Your task to perform on an android device: Open sound settings Image 0: 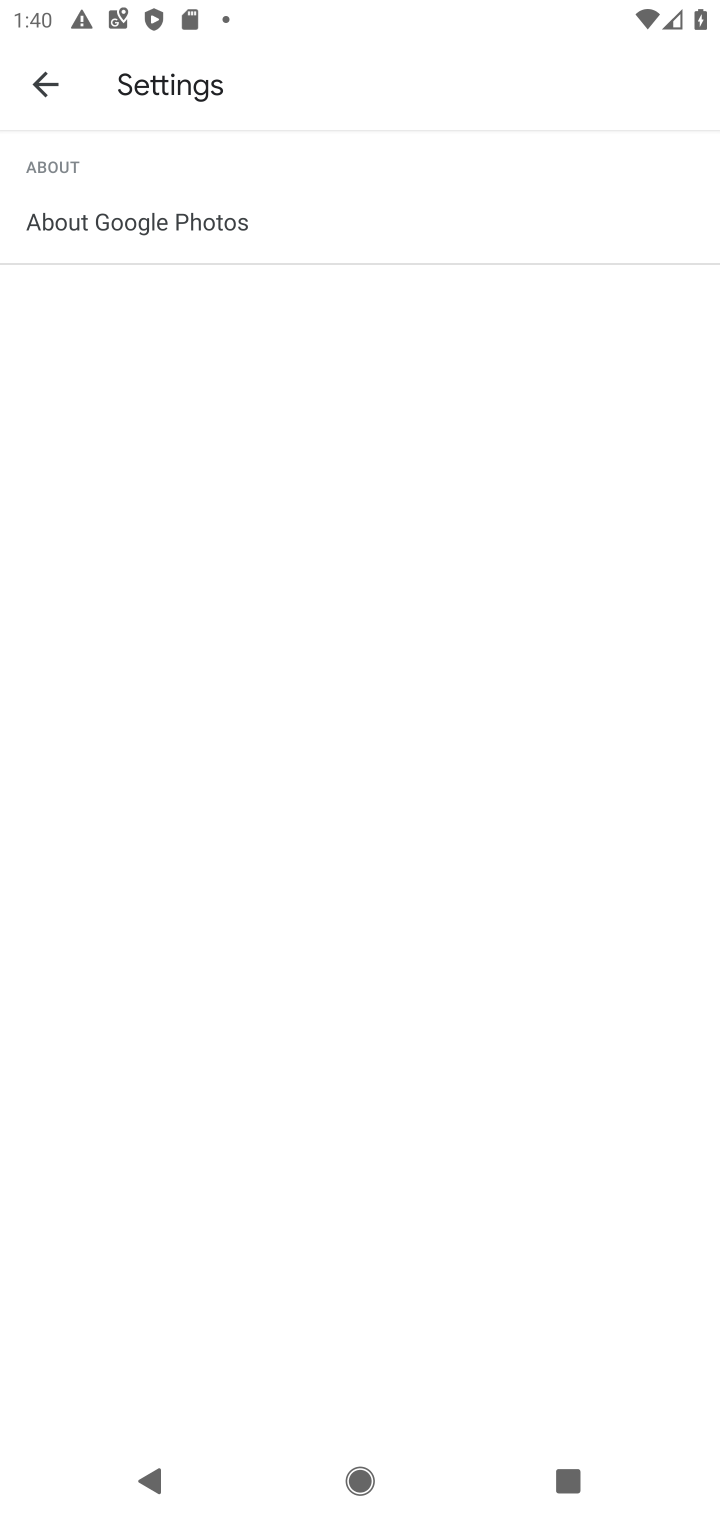
Step 0: press home button
Your task to perform on an android device: Open sound settings Image 1: 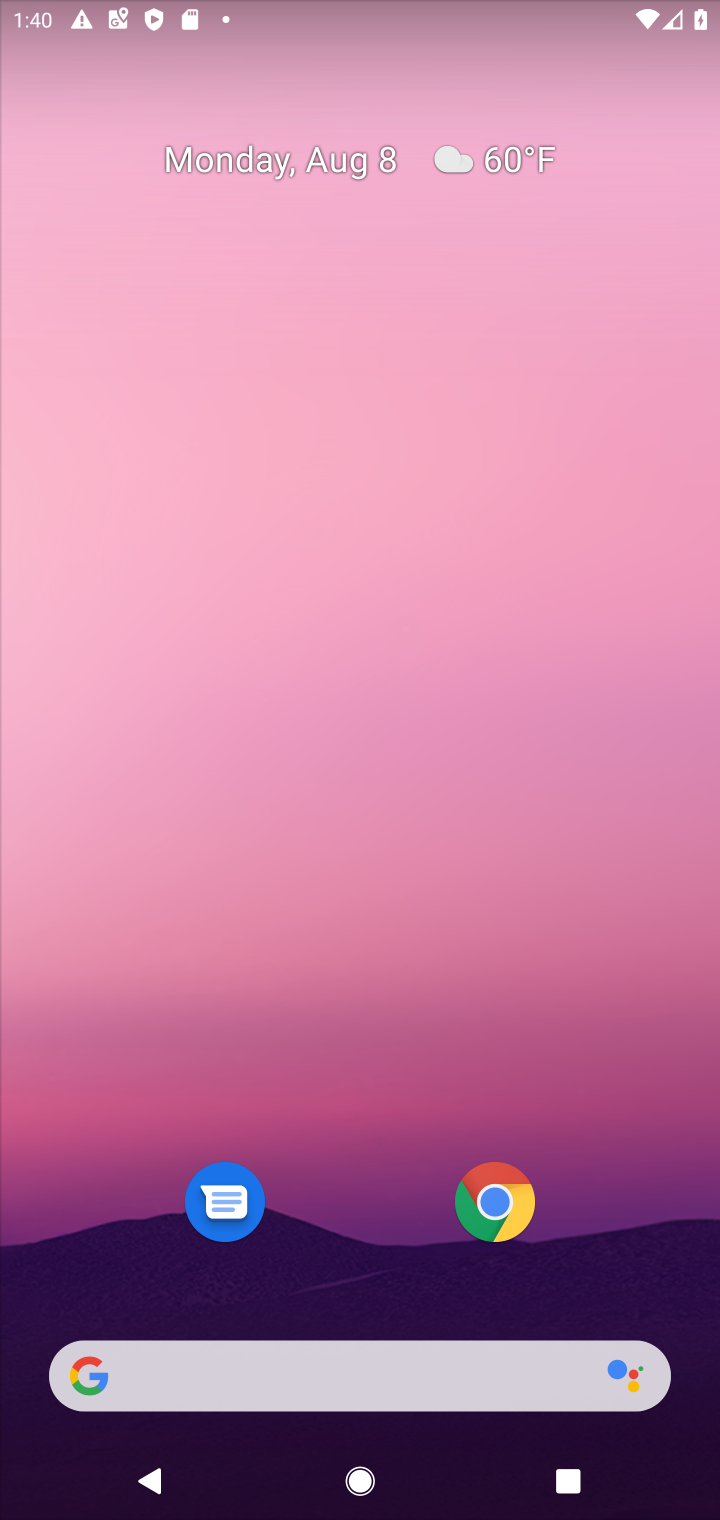
Step 1: press home button
Your task to perform on an android device: Open sound settings Image 2: 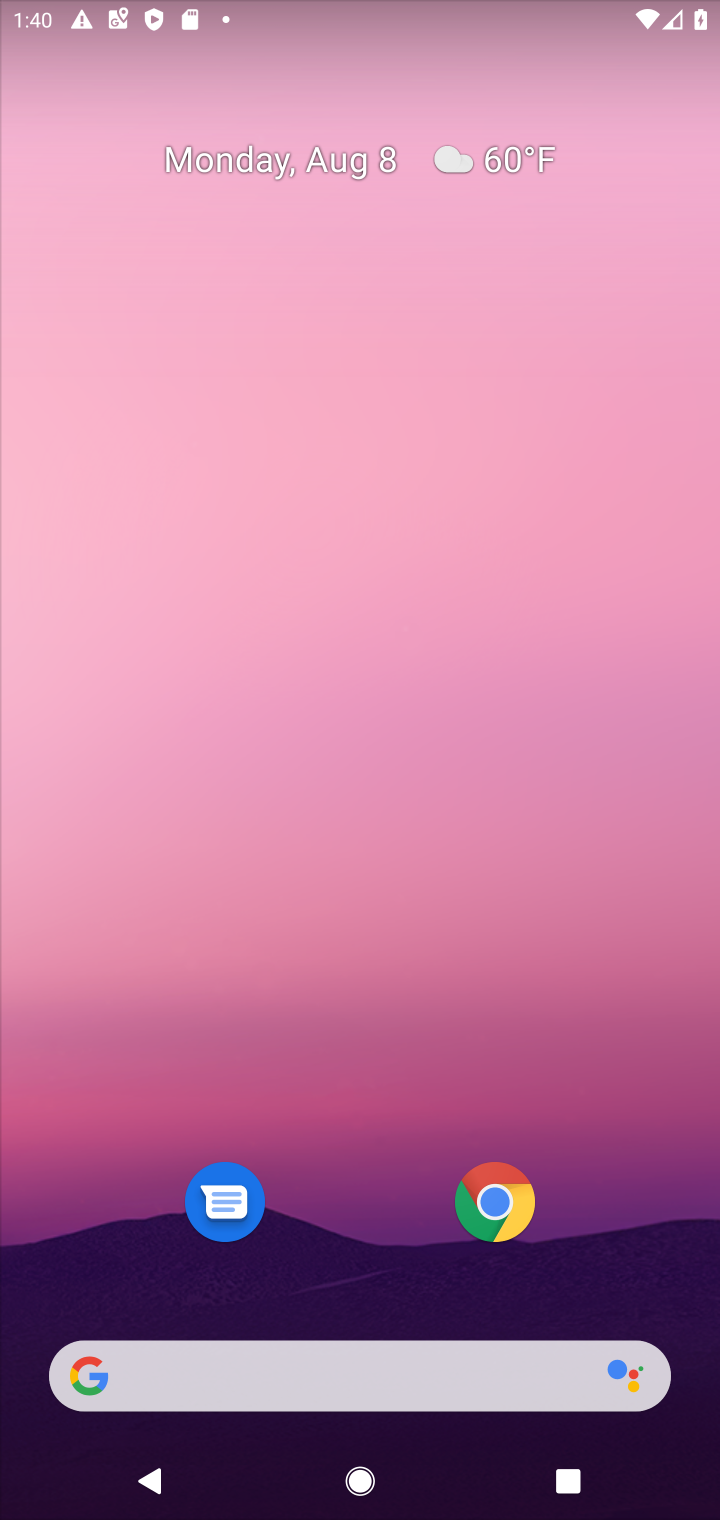
Step 2: click (581, 268)
Your task to perform on an android device: Open sound settings Image 3: 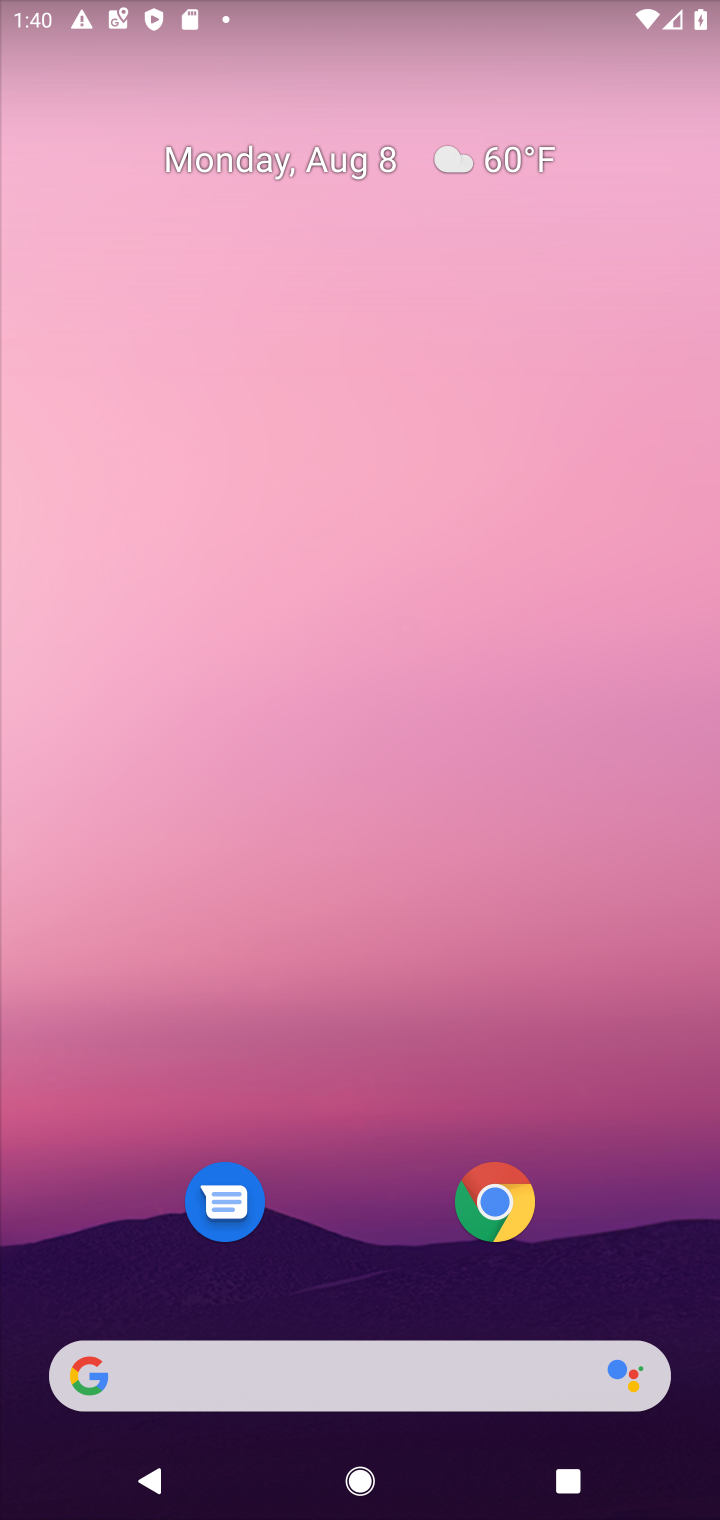
Step 3: drag from (615, 1095) to (593, 229)
Your task to perform on an android device: Open sound settings Image 4: 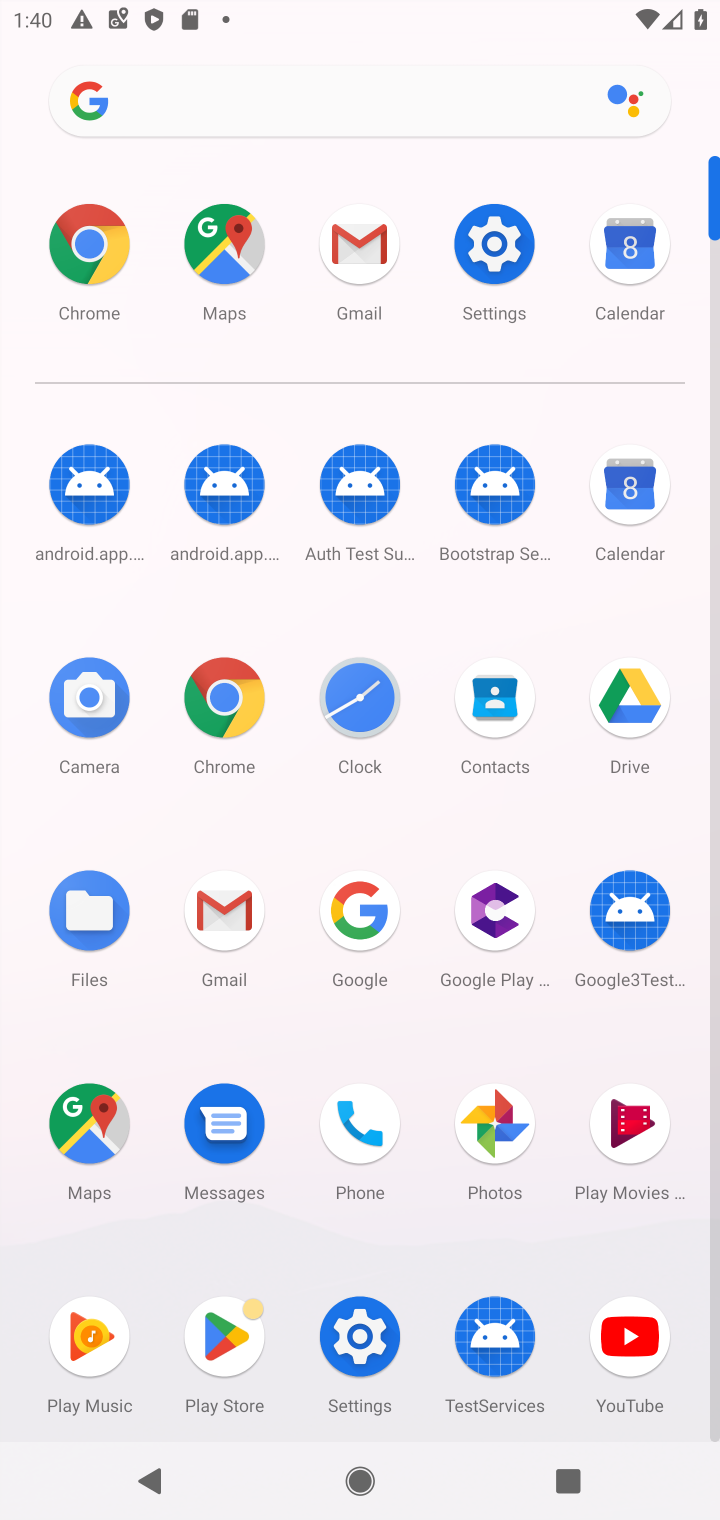
Step 4: click (345, 1338)
Your task to perform on an android device: Open sound settings Image 5: 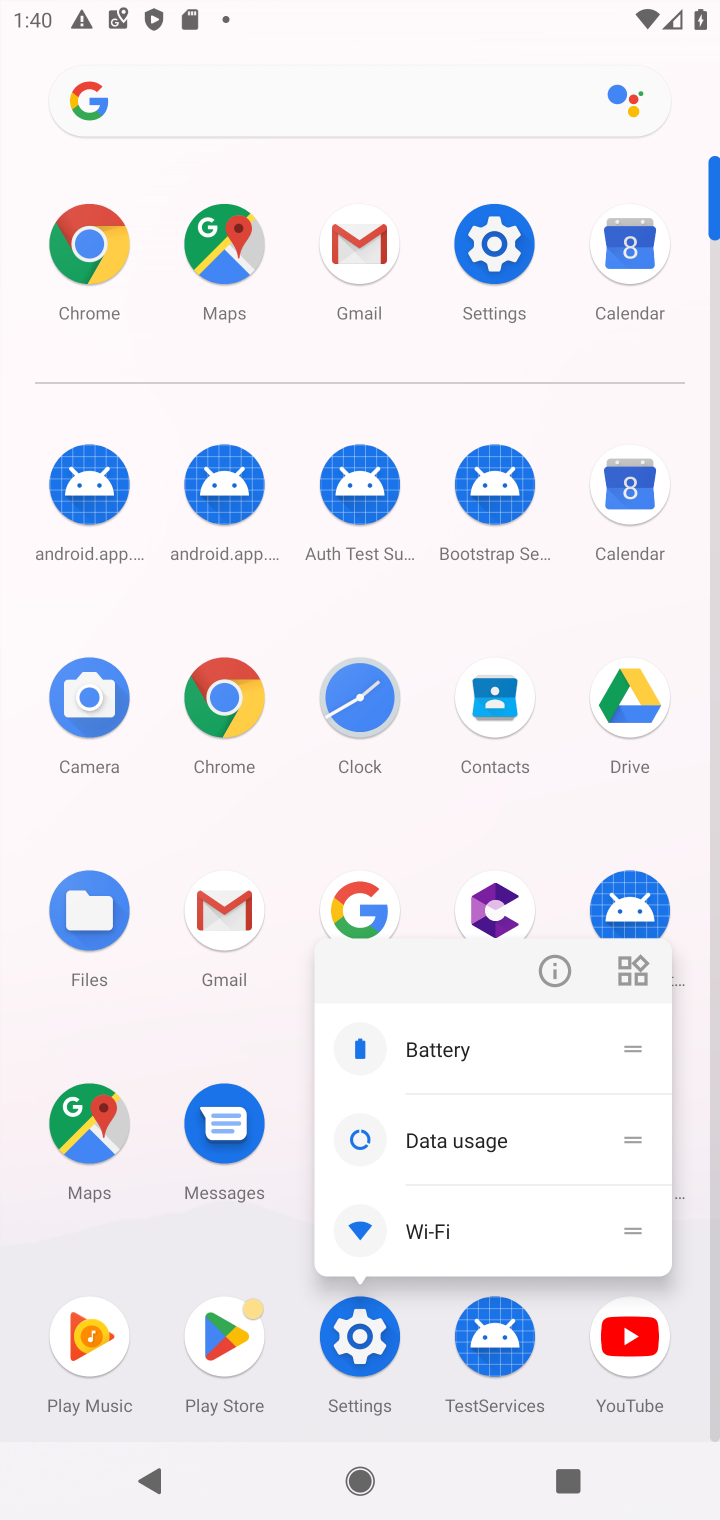
Step 5: click (497, 225)
Your task to perform on an android device: Open sound settings Image 6: 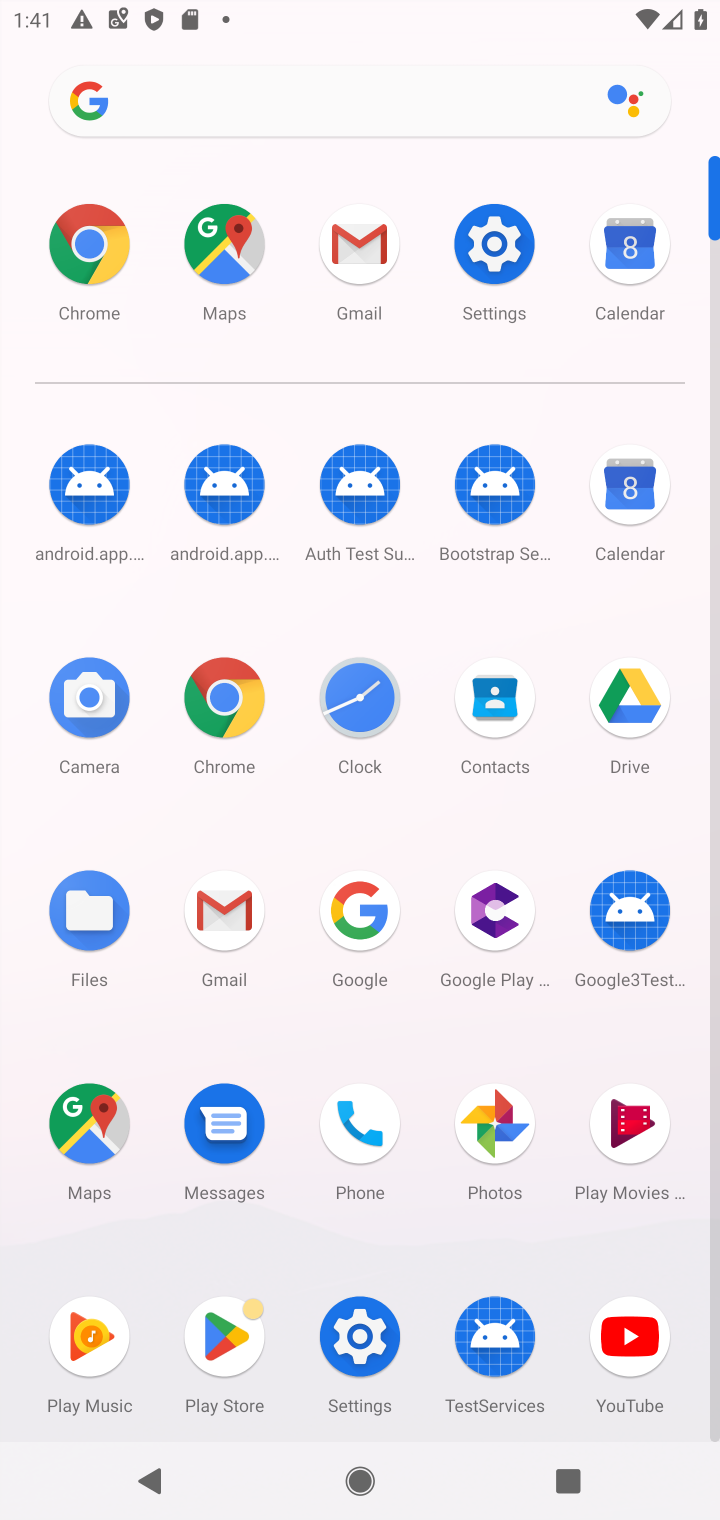
Step 6: click (494, 269)
Your task to perform on an android device: Open sound settings Image 7: 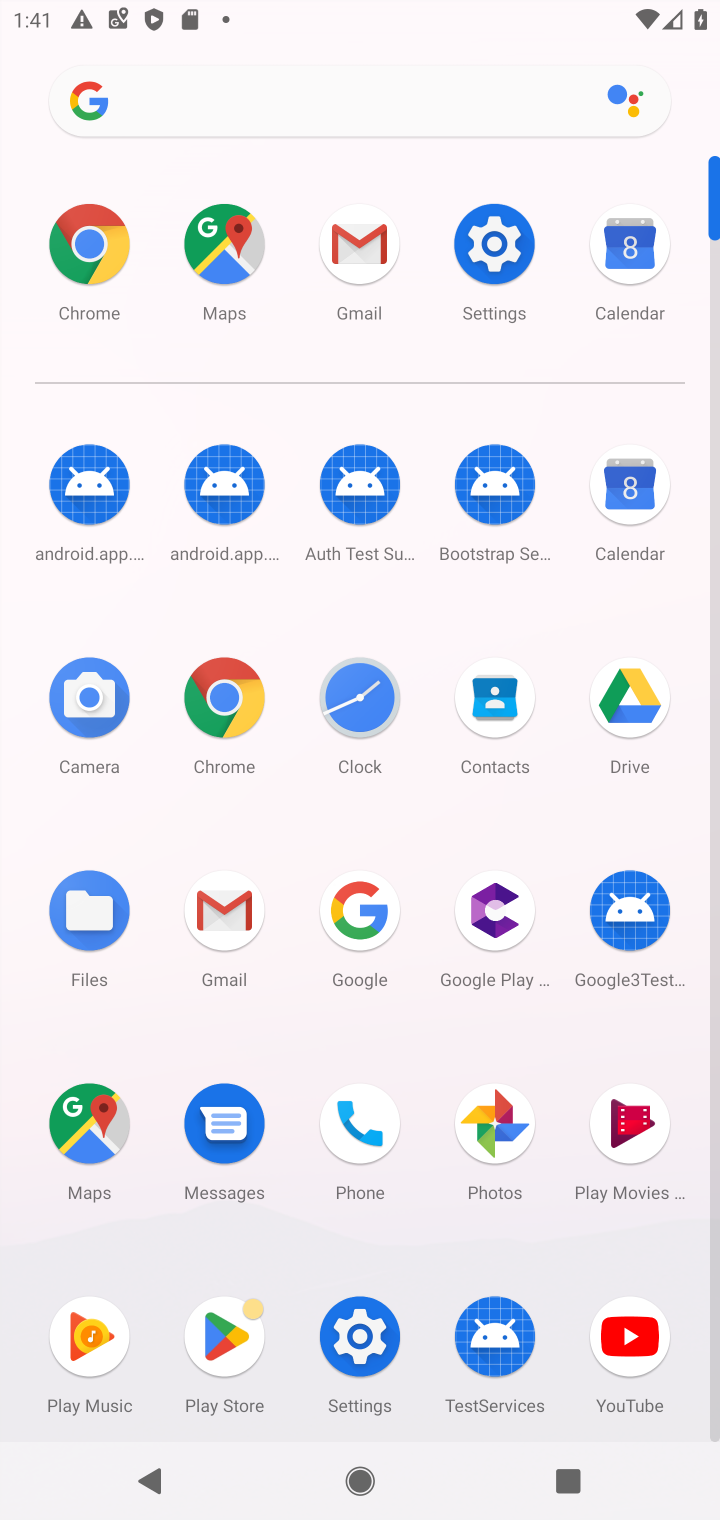
Step 7: click (494, 269)
Your task to perform on an android device: Open sound settings Image 8: 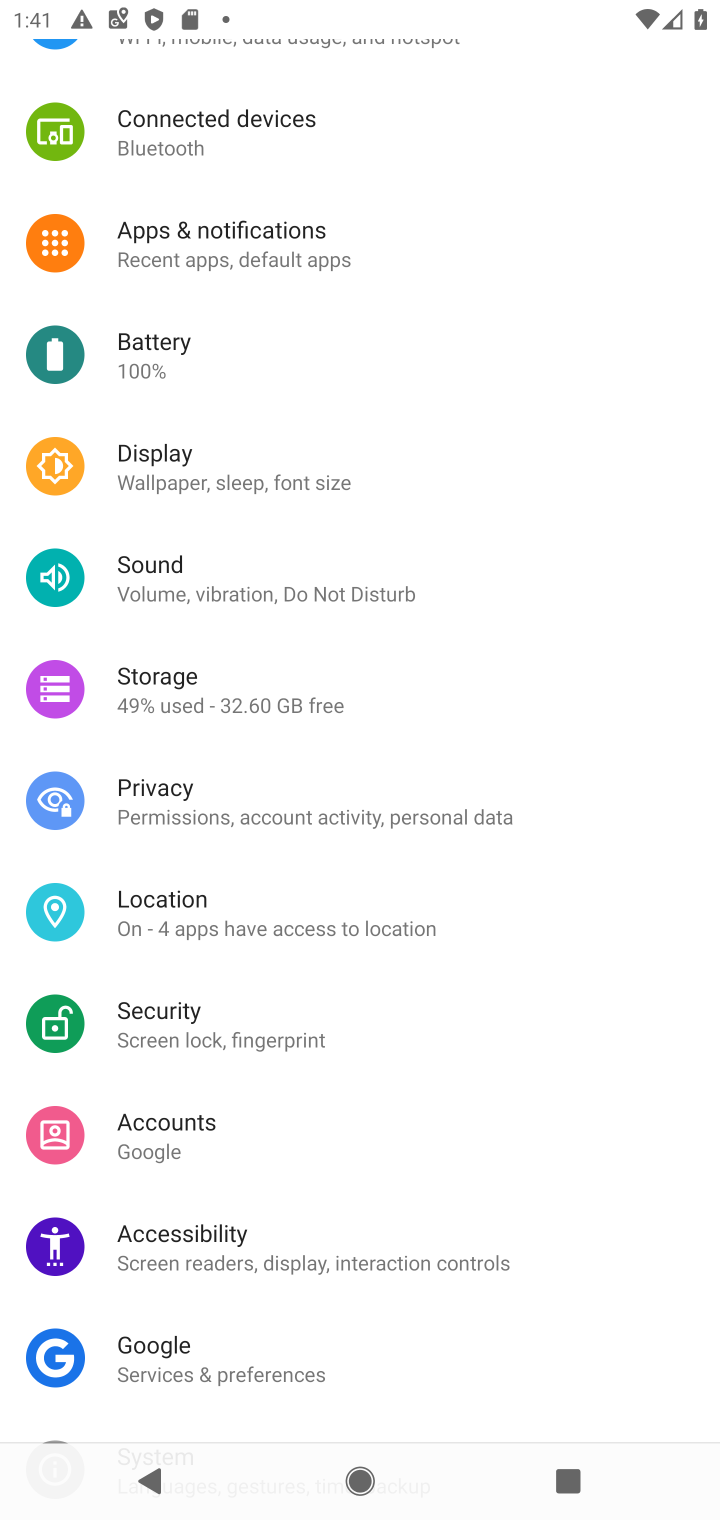
Step 8: drag from (608, 382) to (612, 756)
Your task to perform on an android device: Open sound settings Image 9: 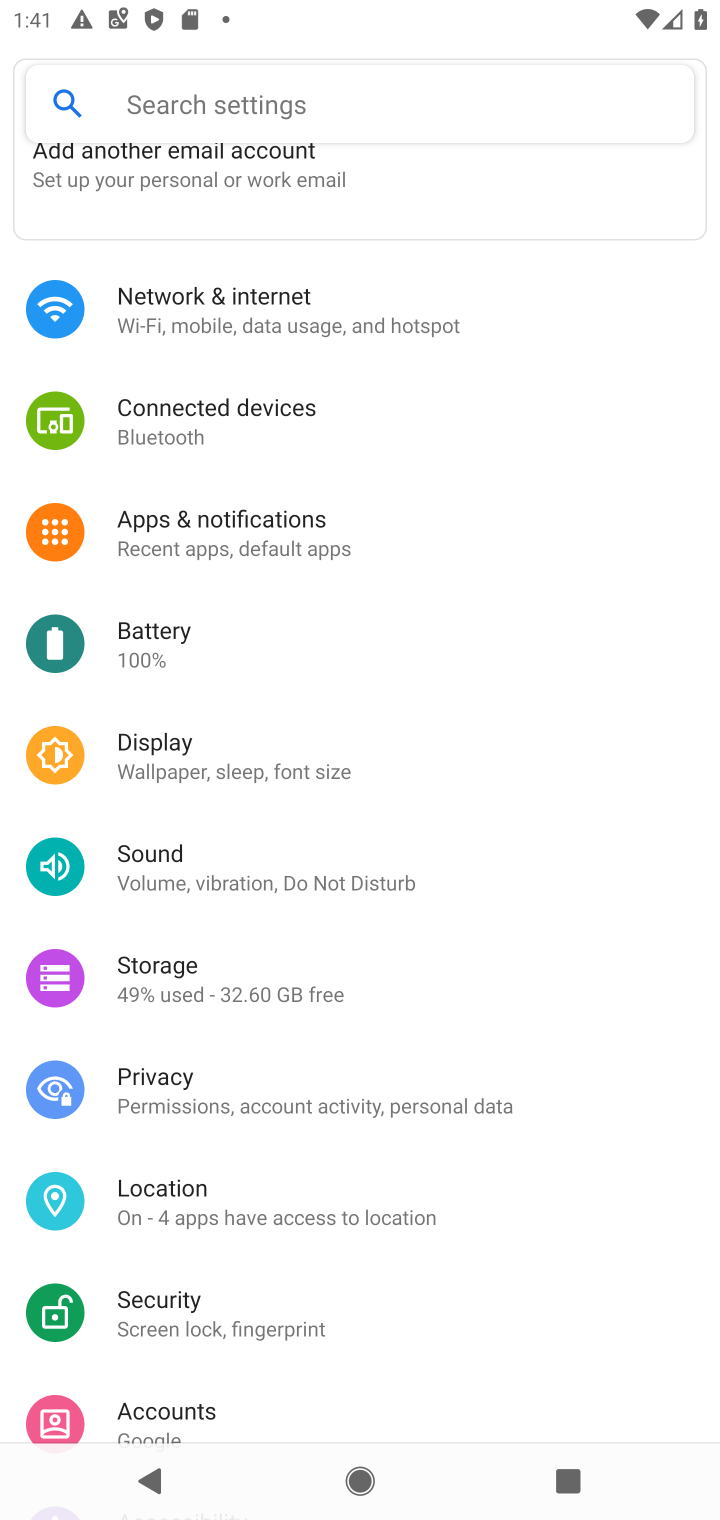
Step 9: drag from (566, 287) to (576, 715)
Your task to perform on an android device: Open sound settings Image 10: 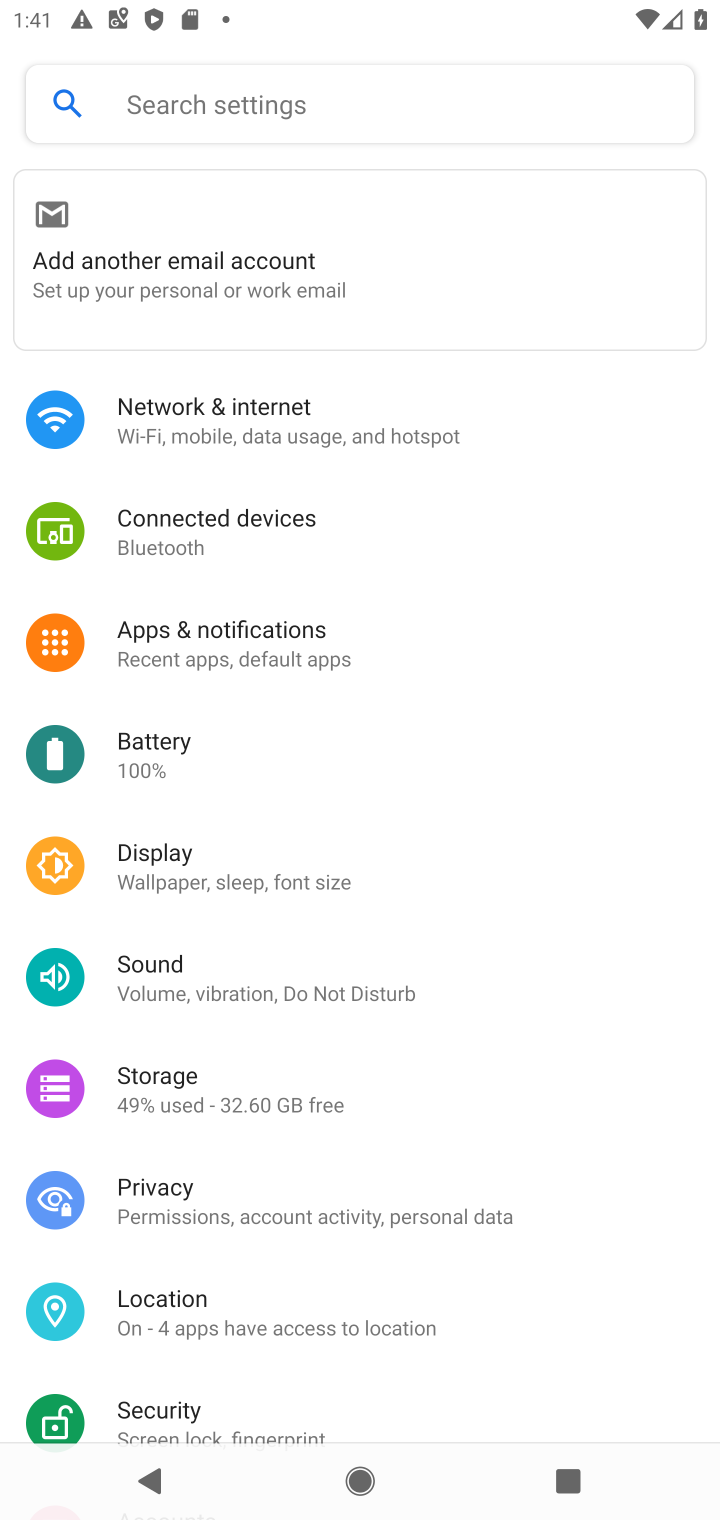
Step 10: drag from (588, 516) to (566, 854)
Your task to perform on an android device: Open sound settings Image 11: 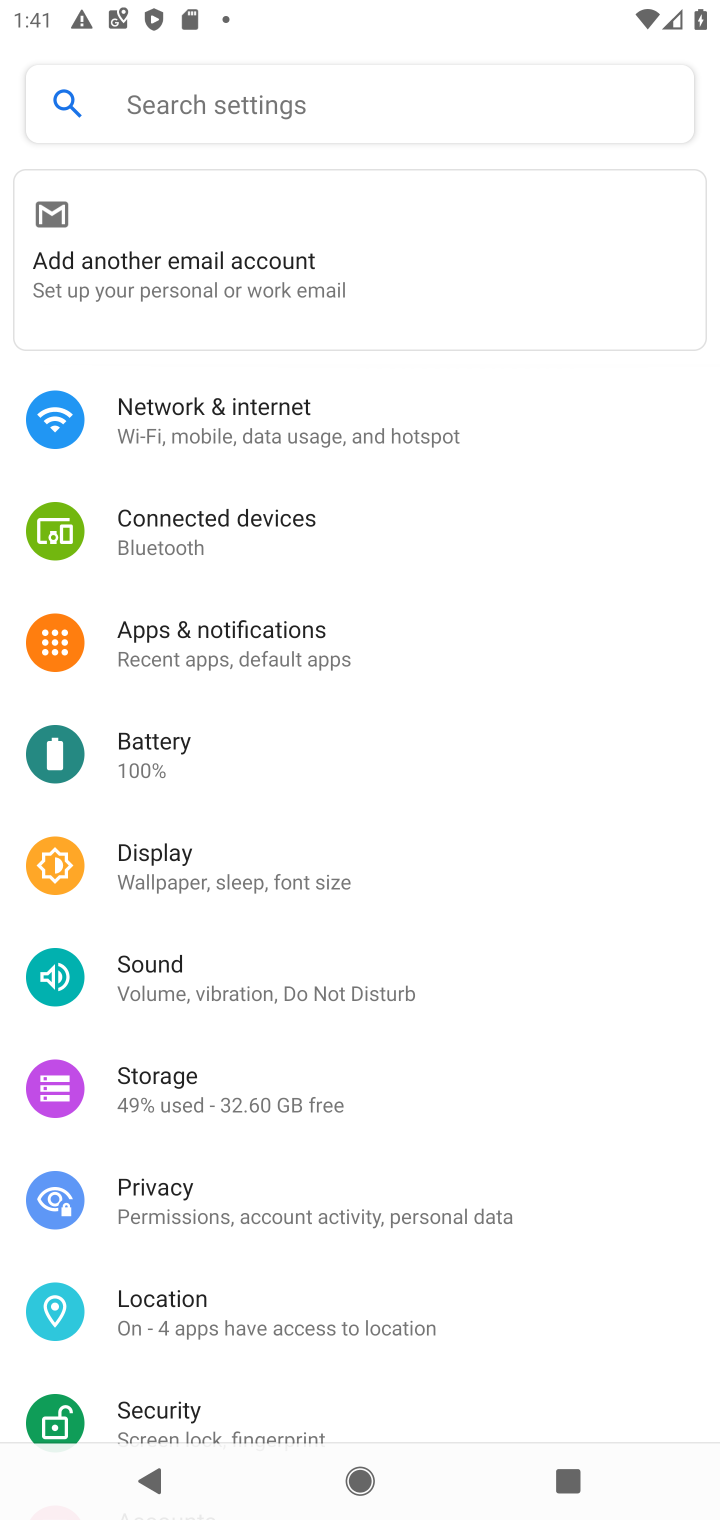
Step 11: drag from (573, 847) to (581, 546)
Your task to perform on an android device: Open sound settings Image 12: 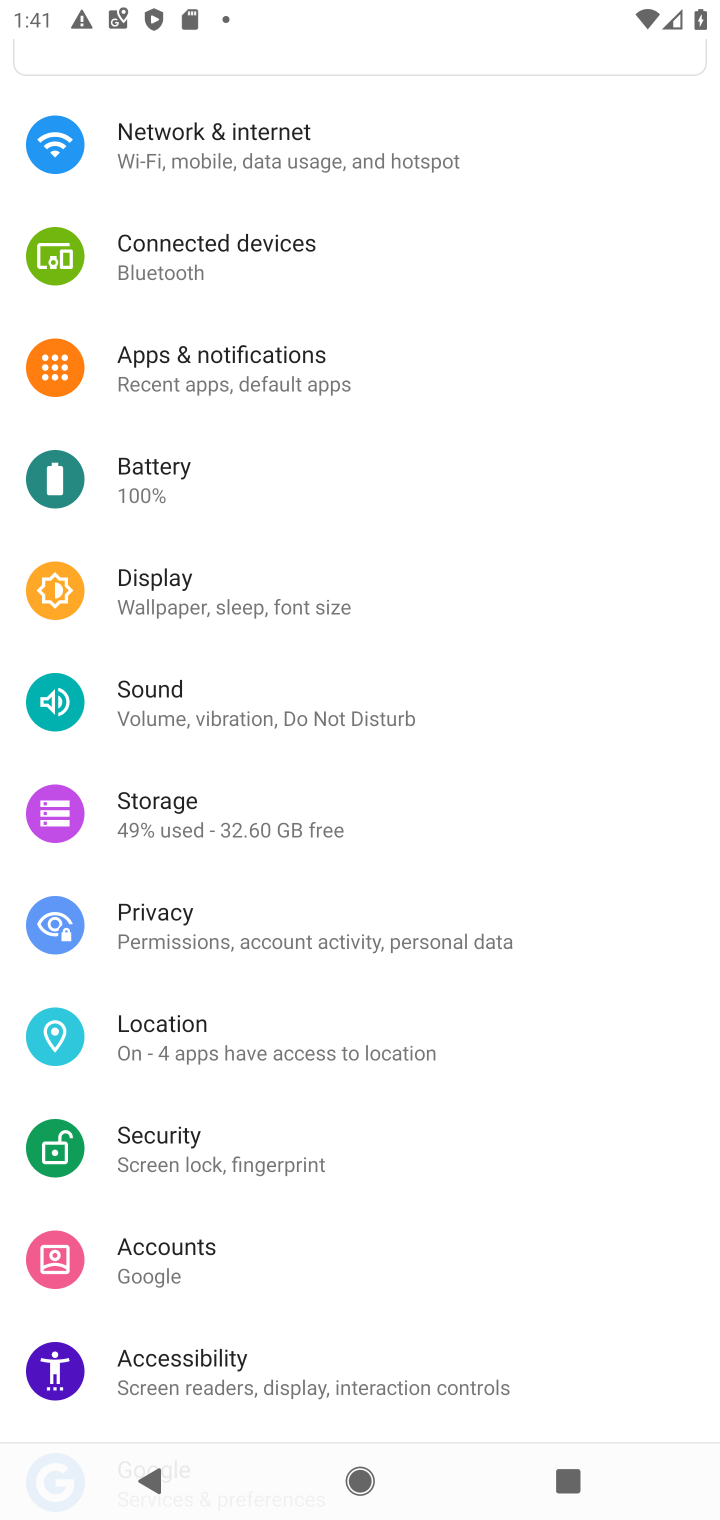
Step 12: drag from (584, 827) to (593, 491)
Your task to perform on an android device: Open sound settings Image 13: 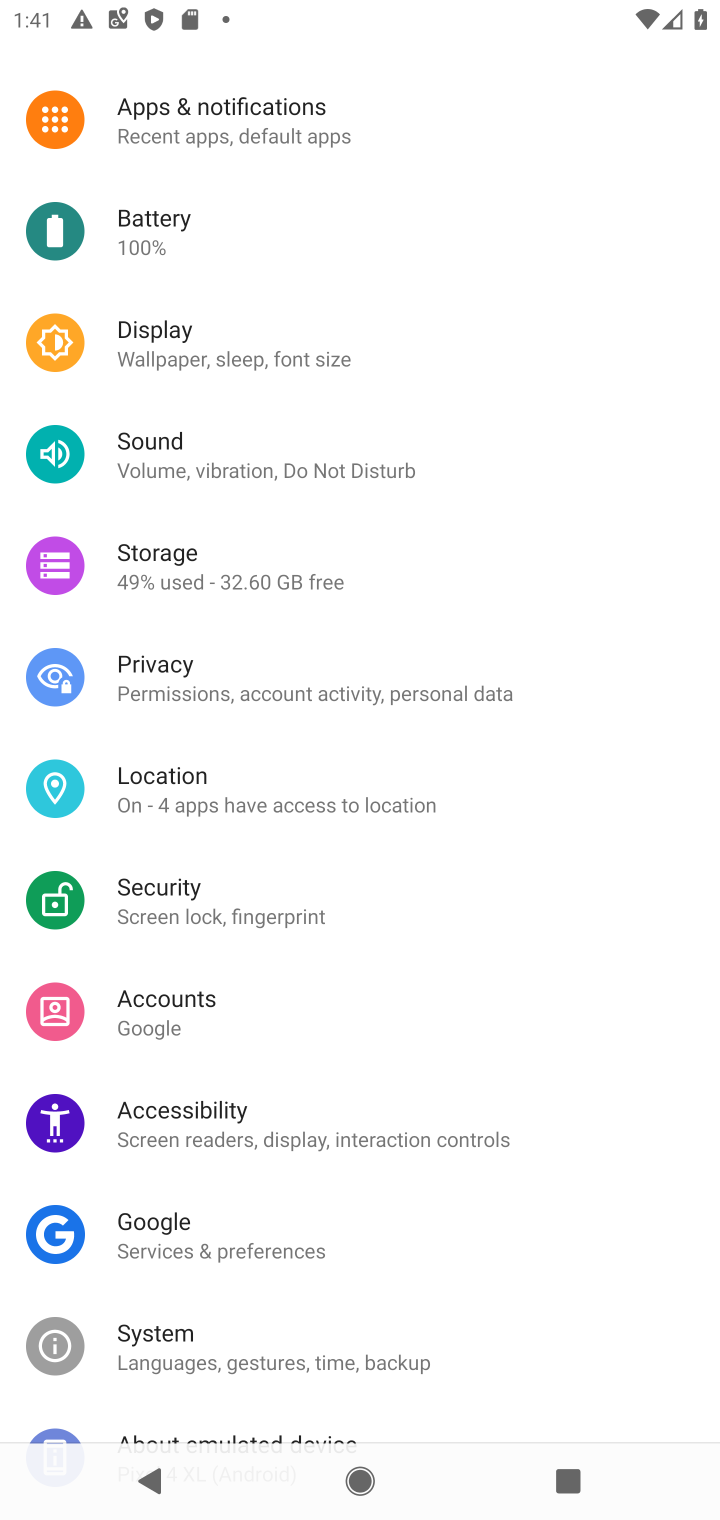
Step 13: drag from (592, 924) to (613, 566)
Your task to perform on an android device: Open sound settings Image 14: 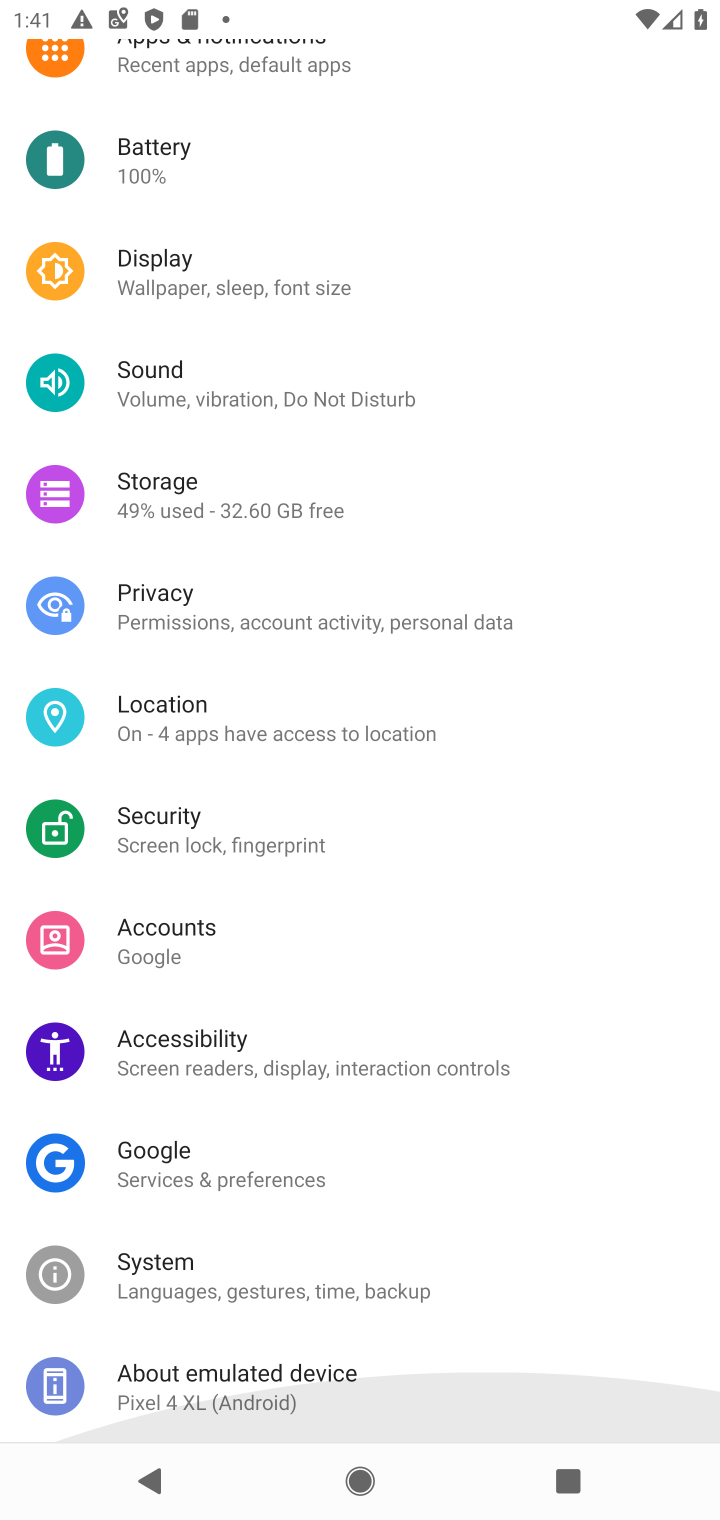
Step 14: drag from (583, 965) to (610, 593)
Your task to perform on an android device: Open sound settings Image 15: 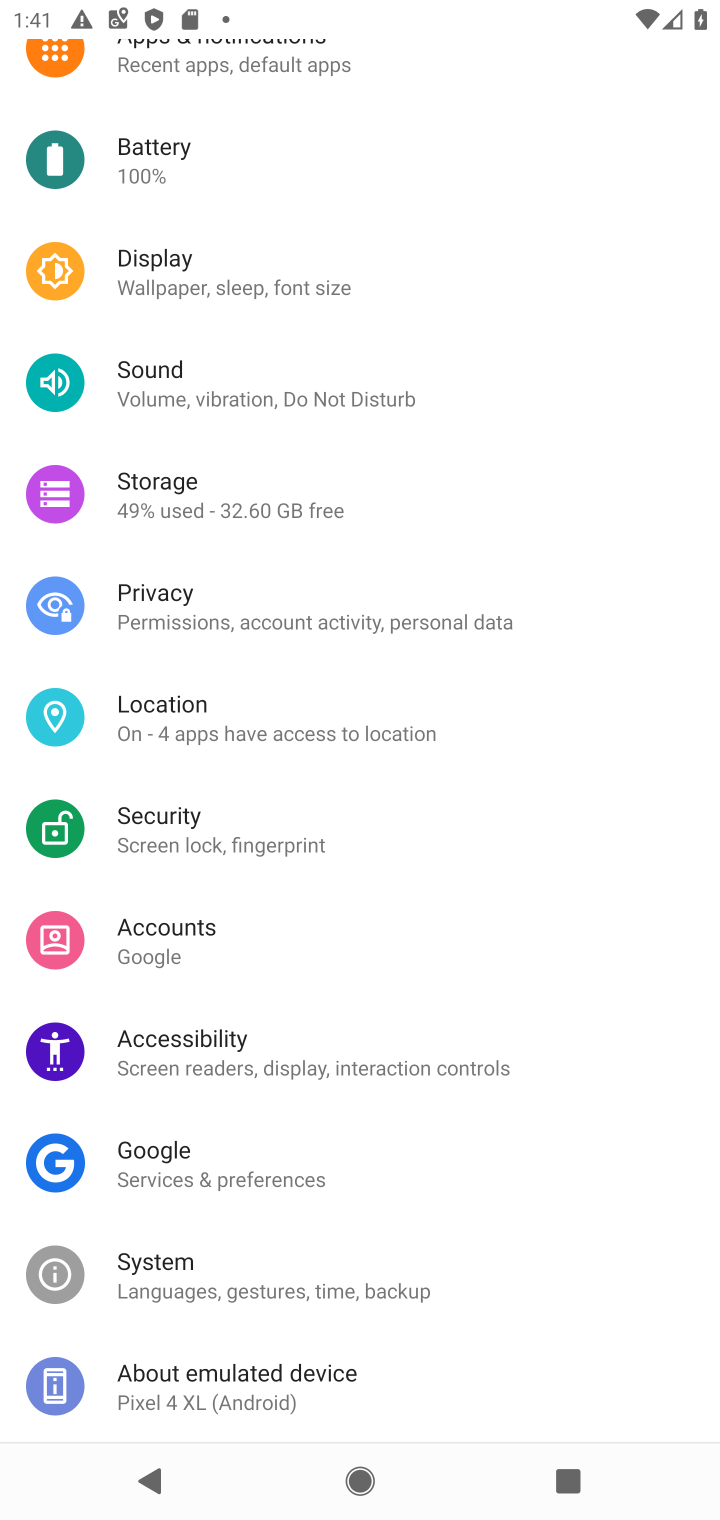
Step 15: drag from (621, 341) to (574, 701)
Your task to perform on an android device: Open sound settings Image 16: 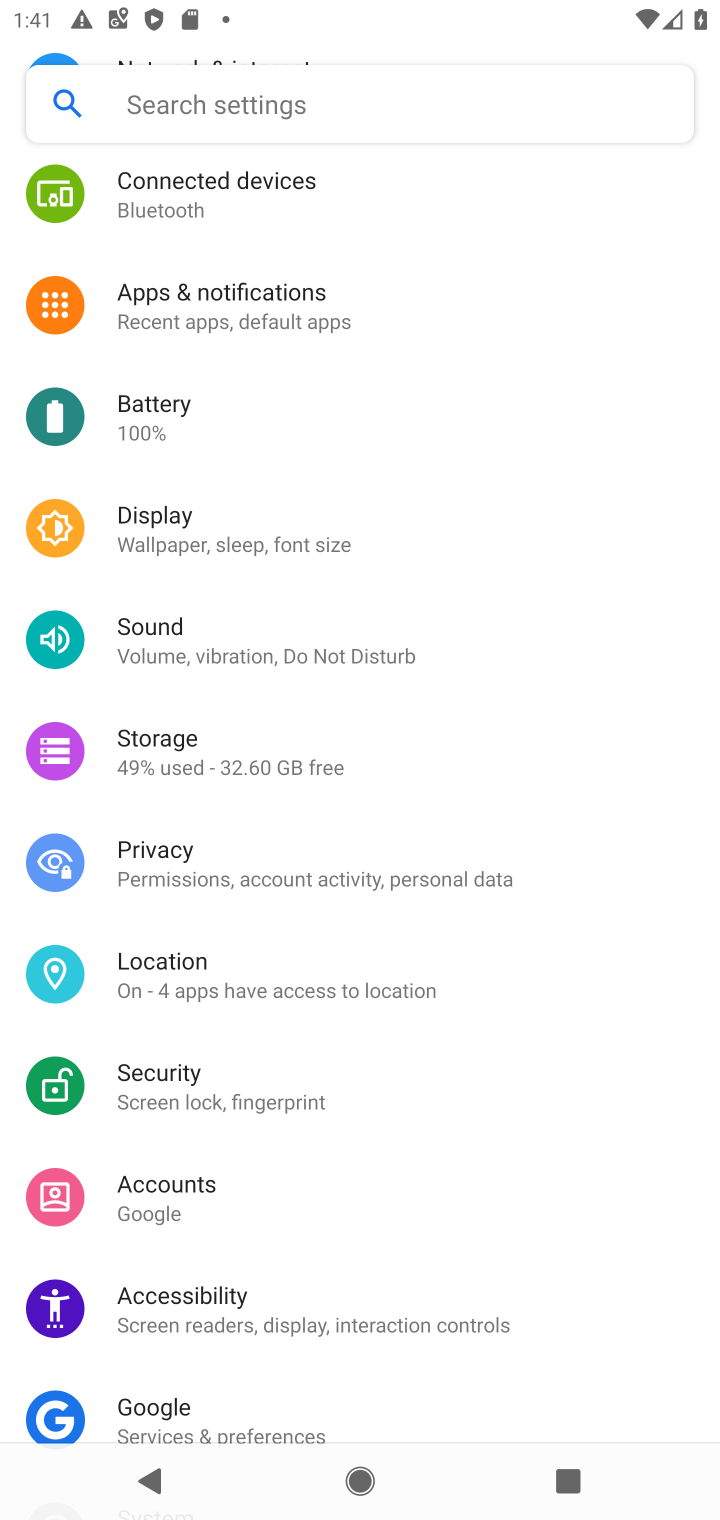
Step 16: drag from (538, 238) to (531, 678)
Your task to perform on an android device: Open sound settings Image 17: 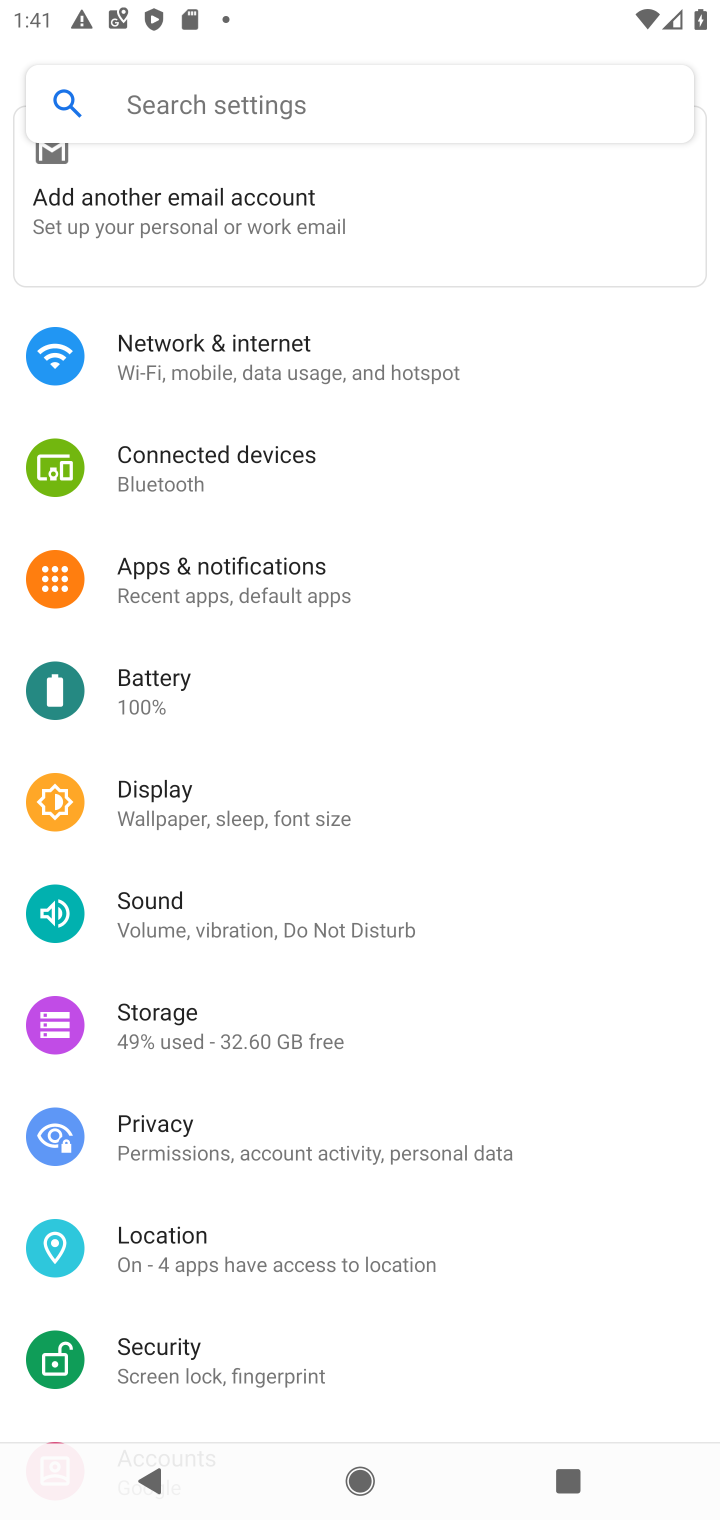
Step 17: drag from (573, 309) to (554, 682)
Your task to perform on an android device: Open sound settings Image 18: 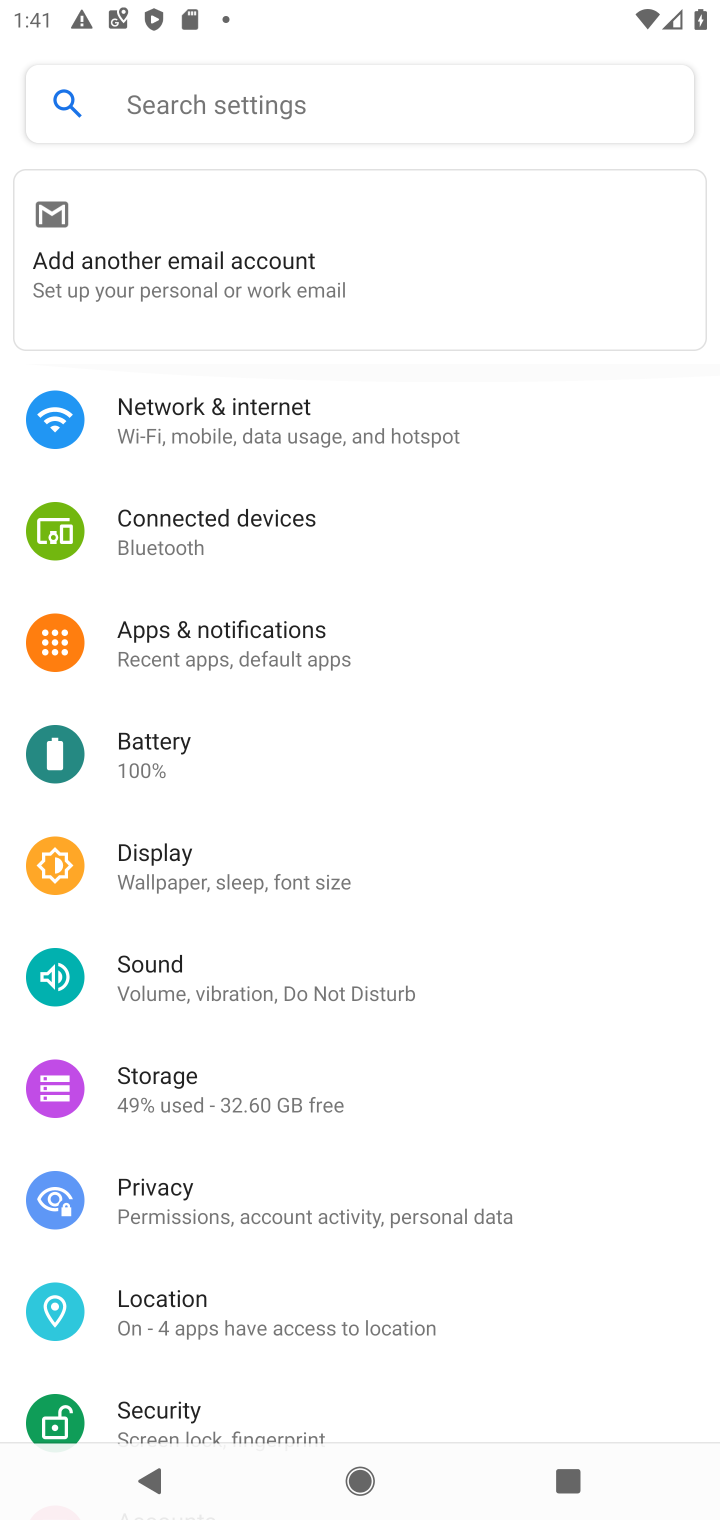
Step 18: click (391, 984)
Your task to perform on an android device: Open sound settings Image 19: 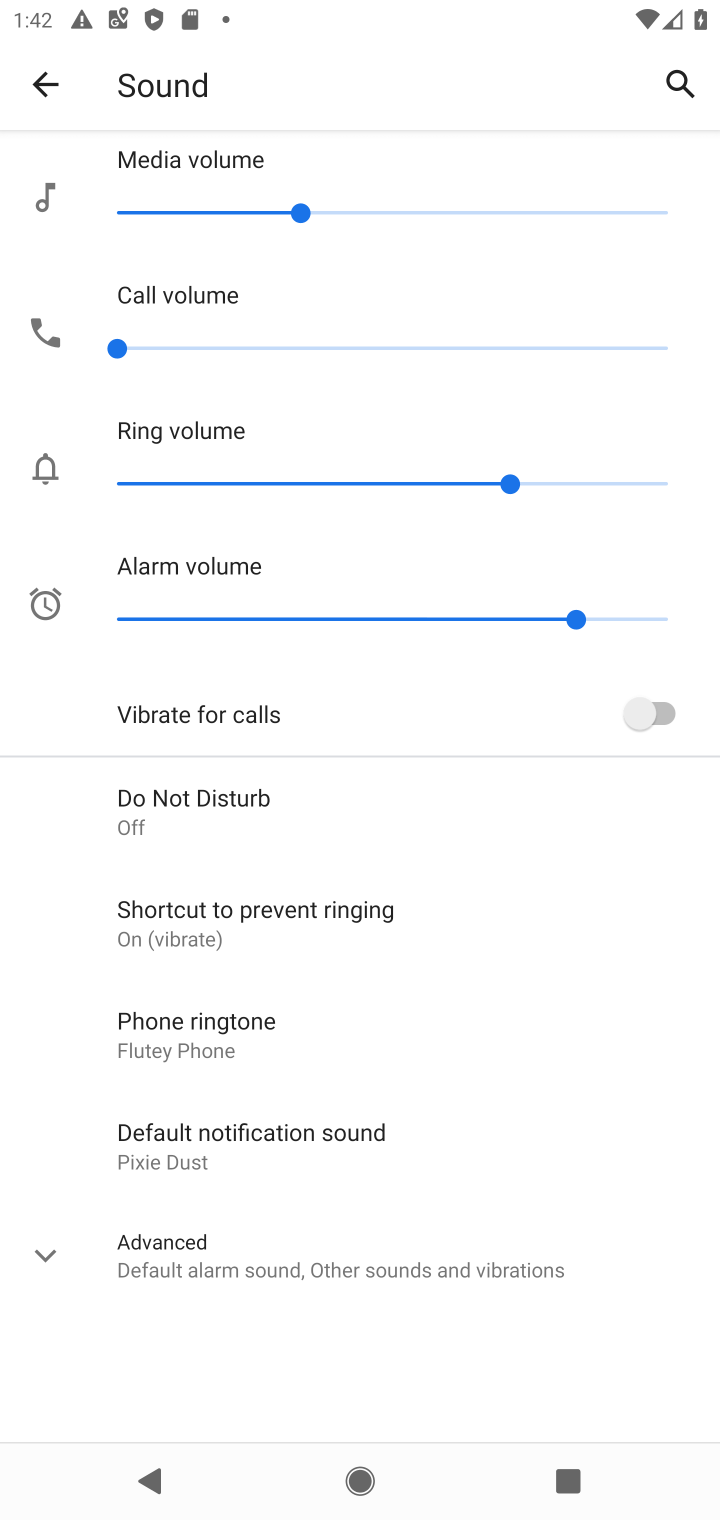
Step 19: task complete